Your task to perform on an android device: turn on data saver in the chrome app Image 0: 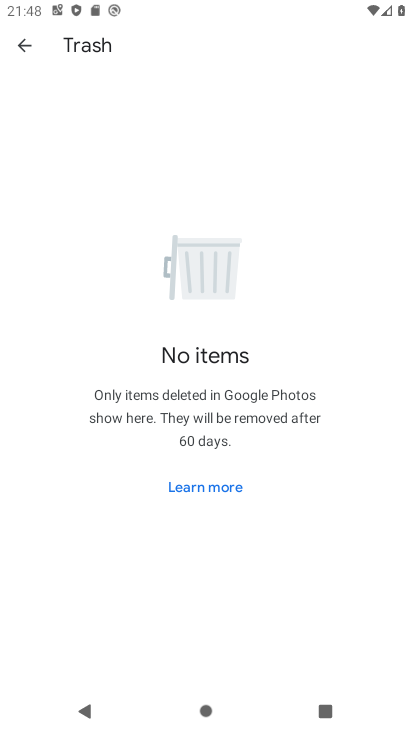
Step 0: press home button
Your task to perform on an android device: turn on data saver in the chrome app Image 1: 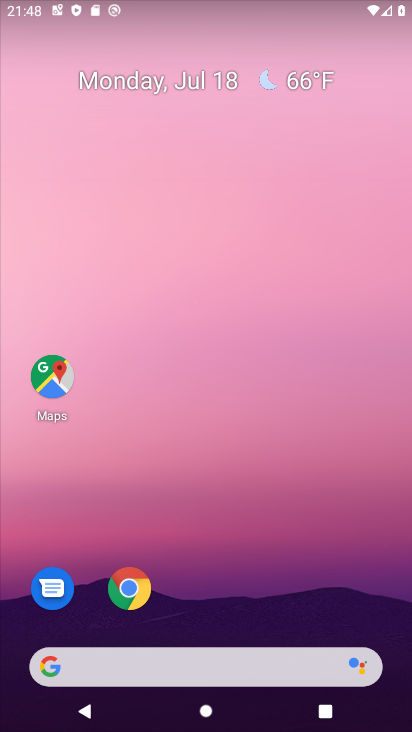
Step 1: click (130, 589)
Your task to perform on an android device: turn on data saver in the chrome app Image 2: 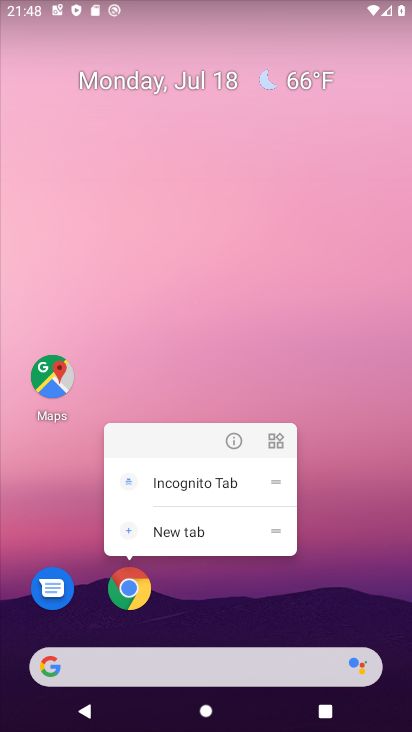
Step 2: click (144, 588)
Your task to perform on an android device: turn on data saver in the chrome app Image 3: 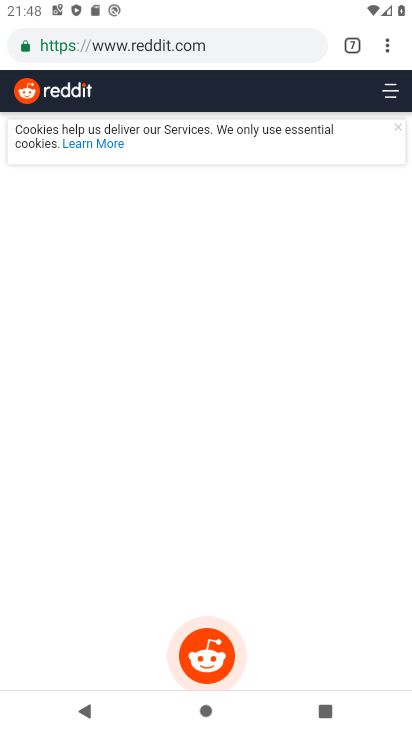
Step 3: drag from (387, 43) to (235, 554)
Your task to perform on an android device: turn on data saver in the chrome app Image 4: 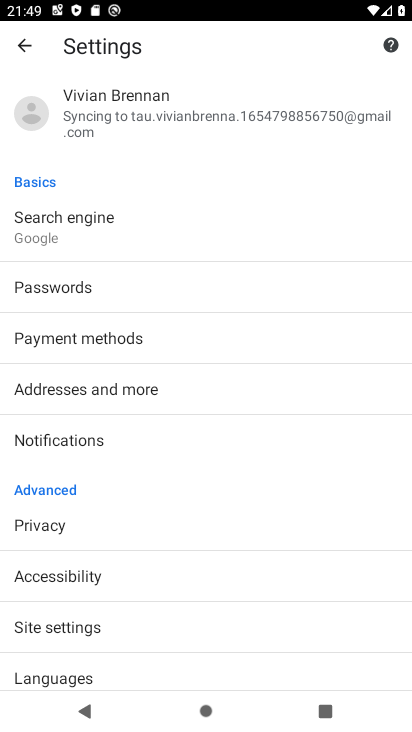
Step 4: drag from (133, 634) to (242, 309)
Your task to perform on an android device: turn on data saver in the chrome app Image 5: 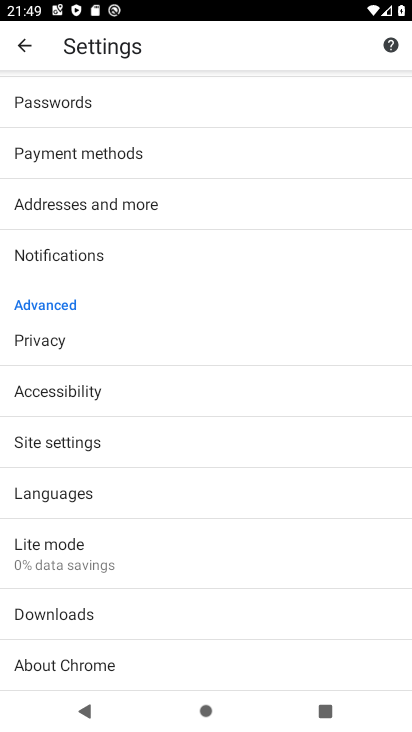
Step 5: click (61, 555)
Your task to perform on an android device: turn on data saver in the chrome app Image 6: 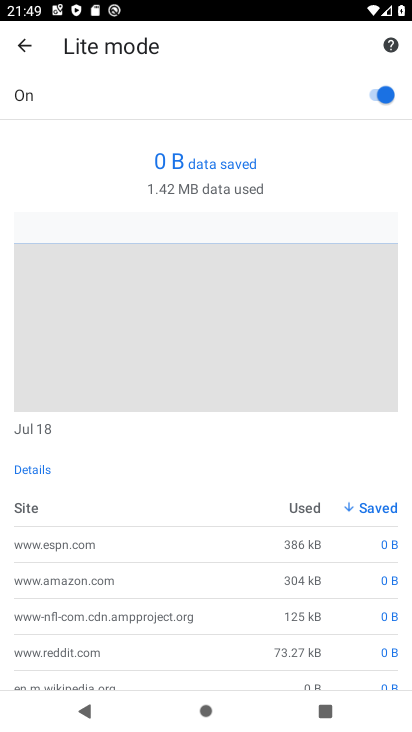
Step 6: task complete